Your task to perform on an android device: Open Chrome and go to settings Image 0: 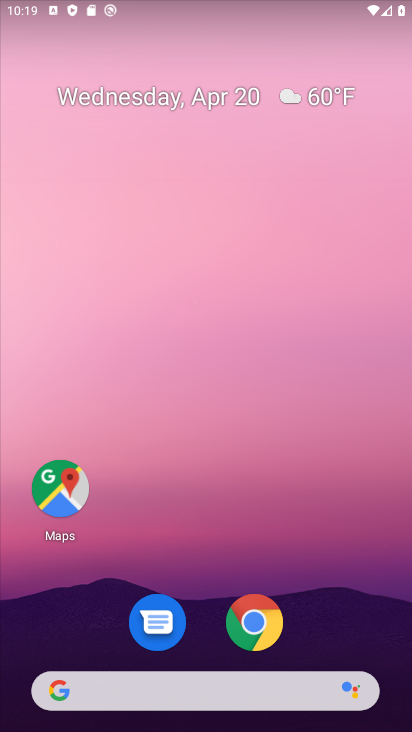
Step 0: drag from (359, 578) to (410, 237)
Your task to perform on an android device: Open Chrome and go to settings Image 1: 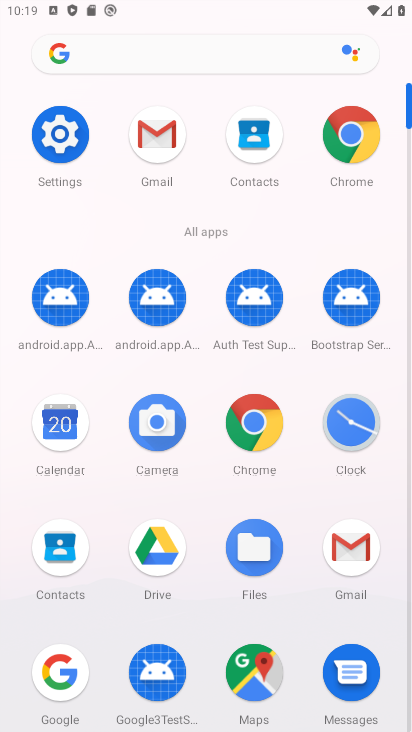
Step 1: click (341, 157)
Your task to perform on an android device: Open Chrome and go to settings Image 2: 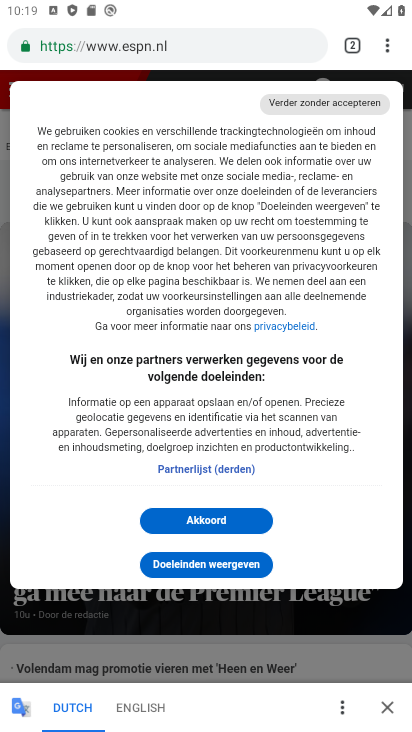
Step 2: task complete